Your task to perform on an android device: change timer sound Image 0: 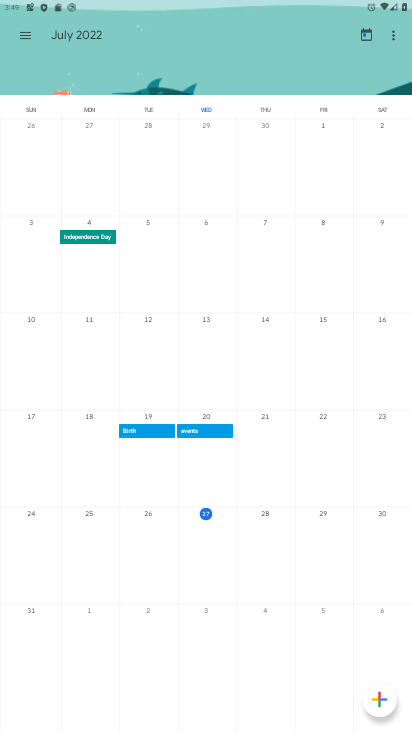
Step 0: press home button
Your task to perform on an android device: change timer sound Image 1: 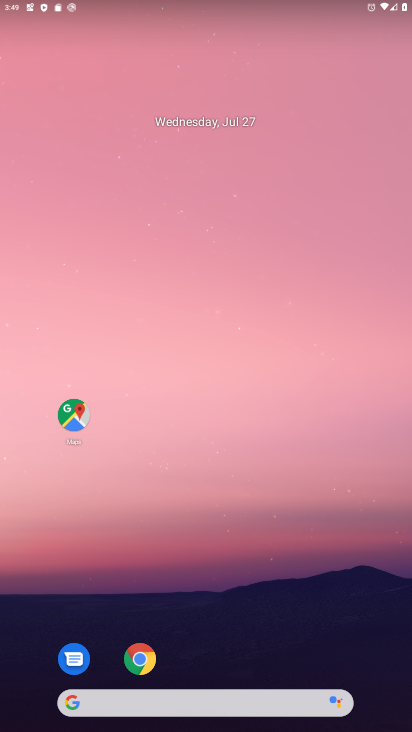
Step 1: drag from (265, 617) to (300, 176)
Your task to perform on an android device: change timer sound Image 2: 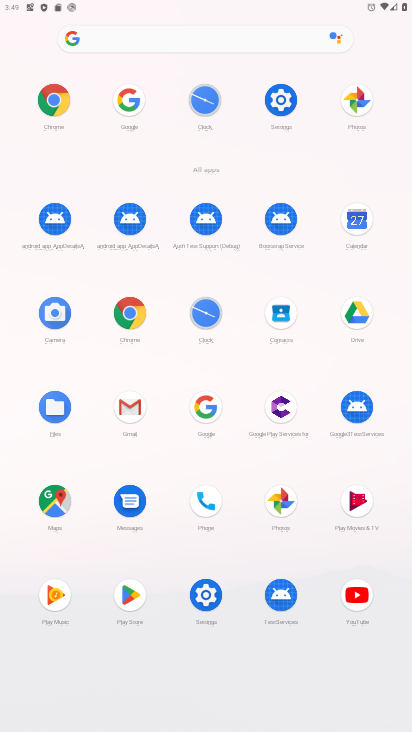
Step 2: click (211, 313)
Your task to perform on an android device: change timer sound Image 3: 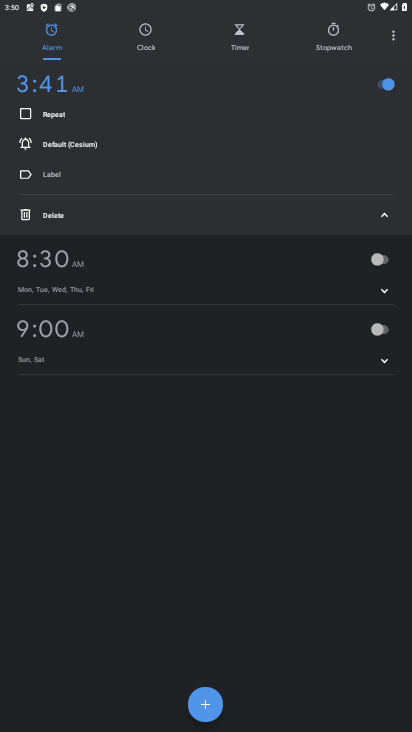
Step 3: click (394, 40)
Your task to perform on an android device: change timer sound Image 4: 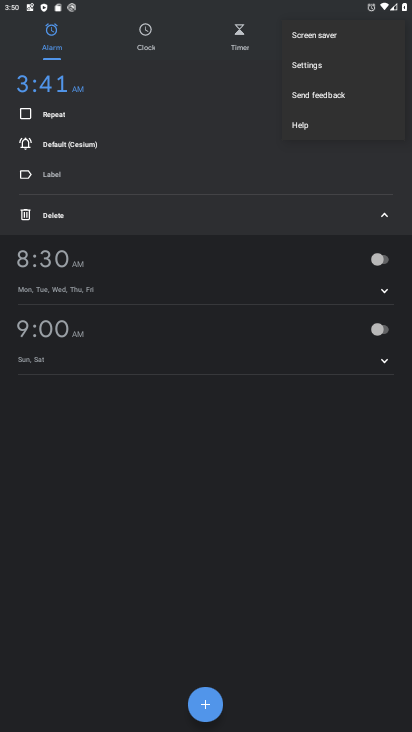
Step 4: click (325, 60)
Your task to perform on an android device: change timer sound Image 5: 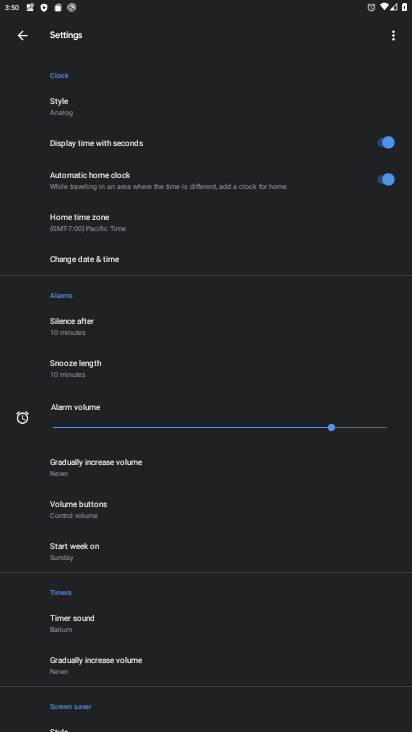
Step 5: click (92, 620)
Your task to perform on an android device: change timer sound Image 6: 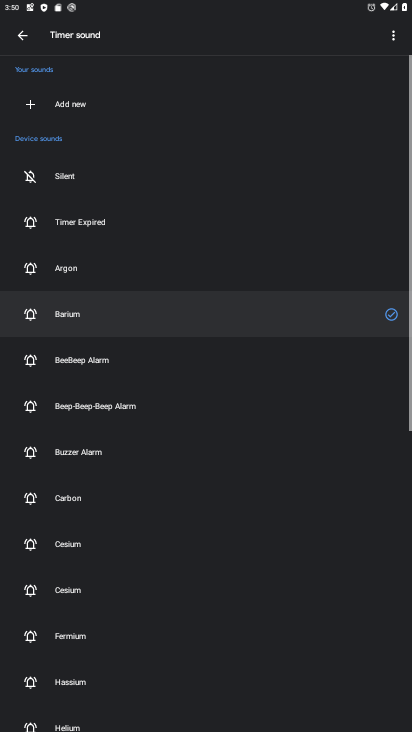
Step 6: click (122, 510)
Your task to perform on an android device: change timer sound Image 7: 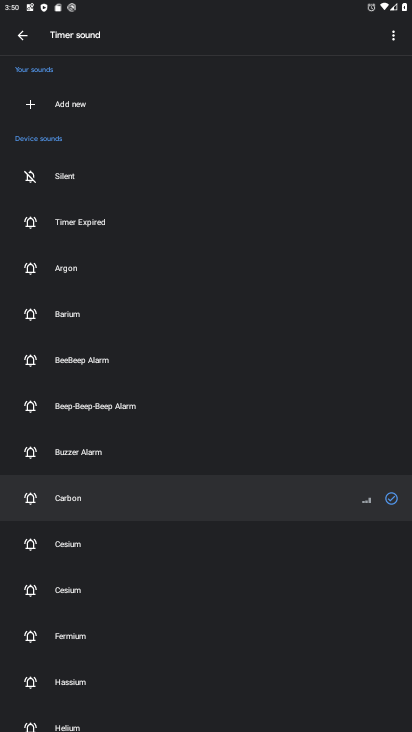
Step 7: task complete